Your task to perform on an android device: Open Google Chrome and open the bookmarks view Image 0: 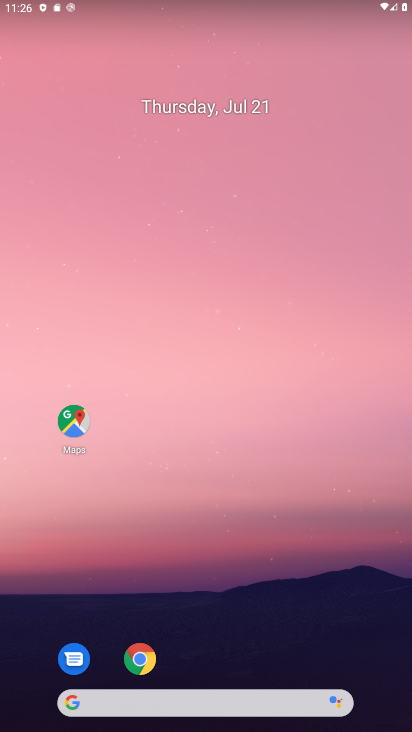
Step 0: click (138, 662)
Your task to perform on an android device: Open Google Chrome and open the bookmarks view Image 1: 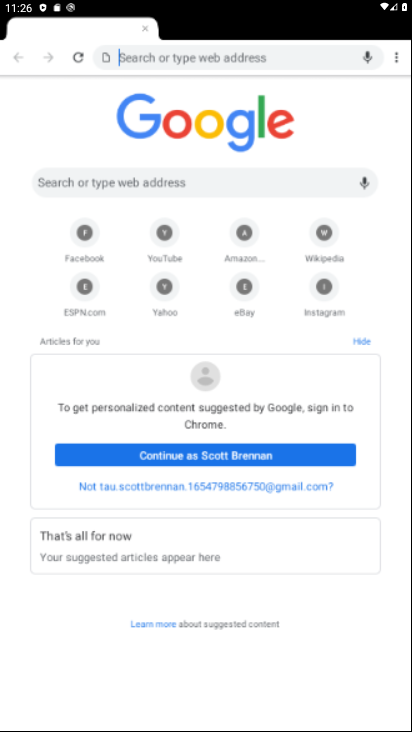
Step 1: task complete